Your task to perform on an android device: turn on the 12-hour format for clock Image 0: 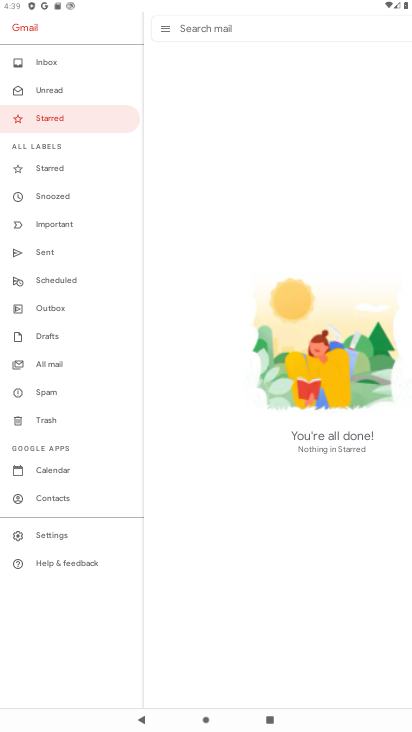
Step 0: press home button
Your task to perform on an android device: turn on the 12-hour format for clock Image 1: 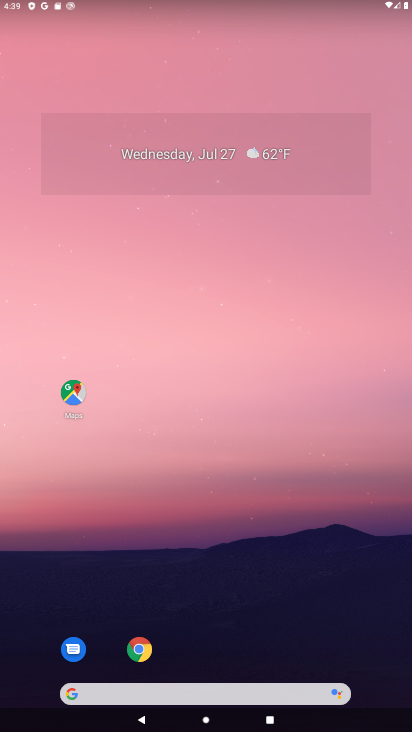
Step 1: drag from (268, 473) to (270, 169)
Your task to perform on an android device: turn on the 12-hour format for clock Image 2: 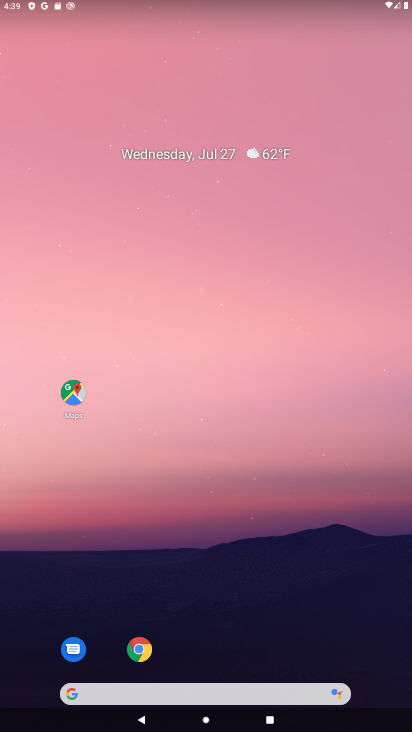
Step 2: drag from (269, 568) to (276, 160)
Your task to perform on an android device: turn on the 12-hour format for clock Image 3: 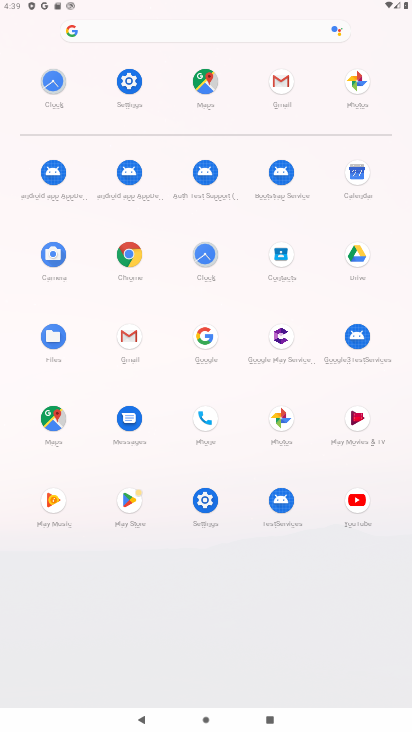
Step 3: click (206, 261)
Your task to perform on an android device: turn on the 12-hour format for clock Image 4: 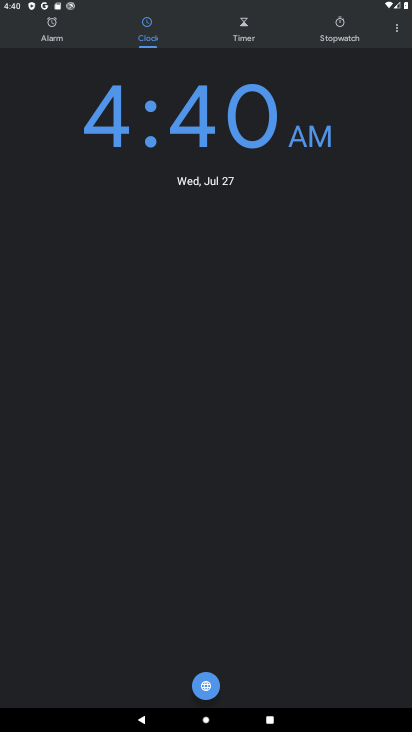
Step 4: task complete